Your task to perform on an android device: turn on bluetooth scan Image 0: 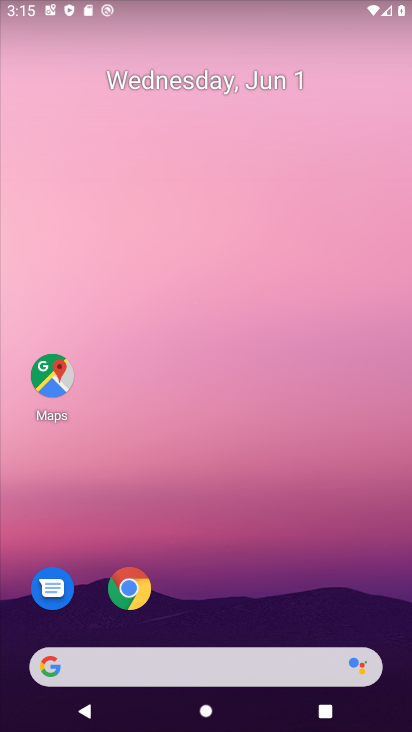
Step 0: drag from (333, 592) to (312, 81)
Your task to perform on an android device: turn on bluetooth scan Image 1: 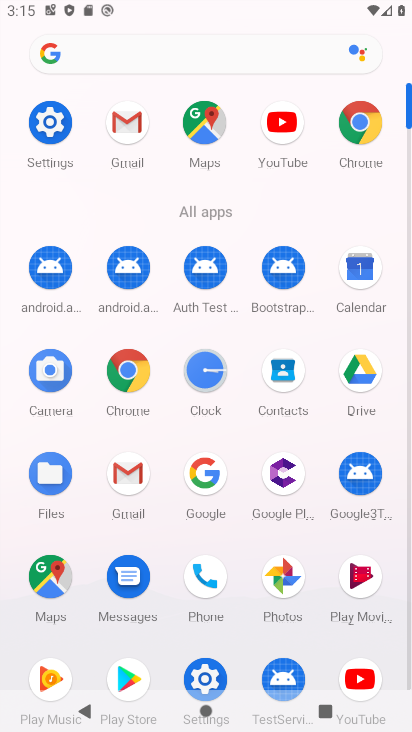
Step 1: click (45, 144)
Your task to perform on an android device: turn on bluetooth scan Image 2: 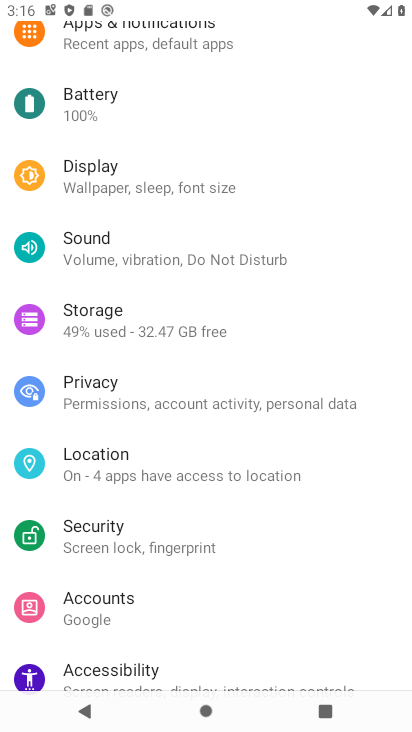
Step 2: click (171, 473)
Your task to perform on an android device: turn on bluetooth scan Image 3: 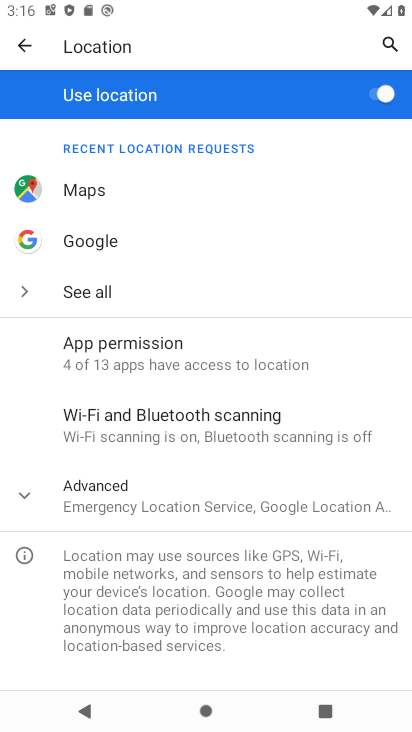
Step 3: click (186, 432)
Your task to perform on an android device: turn on bluetooth scan Image 4: 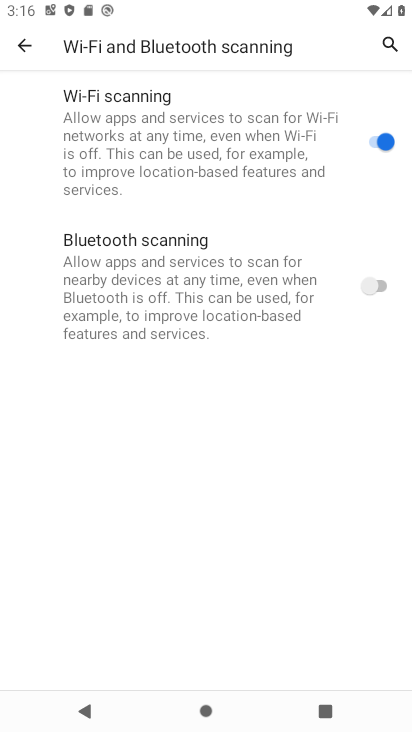
Step 4: click (368, 294)
Your task to perform on an android device: turn on bluetooth scan Image 5: 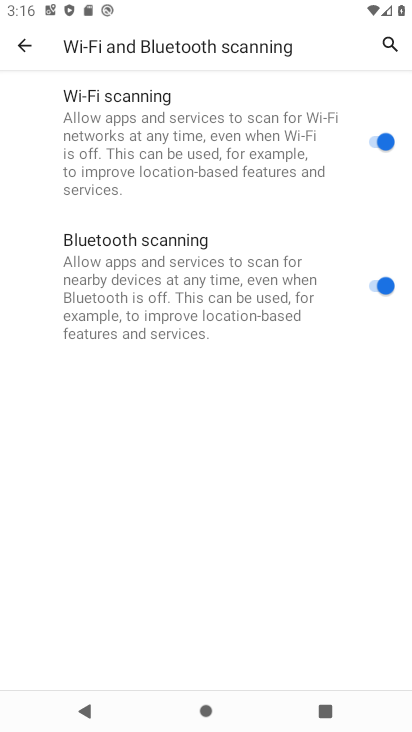
Step 5: task complete